Your task to perform on an android device: toggle notification dots Image 0: 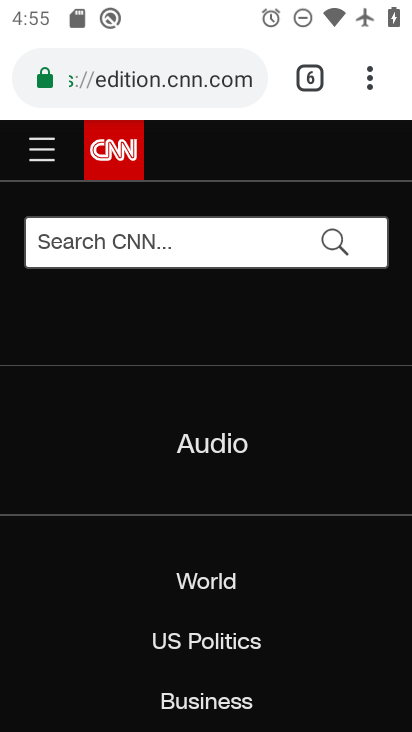
Step 0: press home button
Your task to perform on an android device: toggle notification dots Image 1: 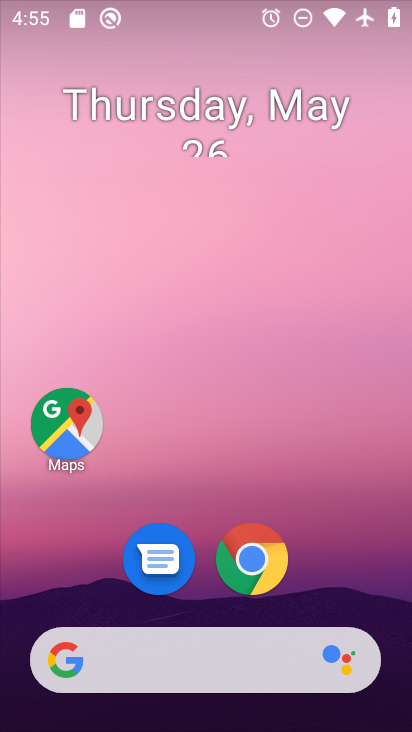
Step 1: drag from (337, 516) to (162, 1)
Your task to perform on an android device: toggle notification dots Image 2: 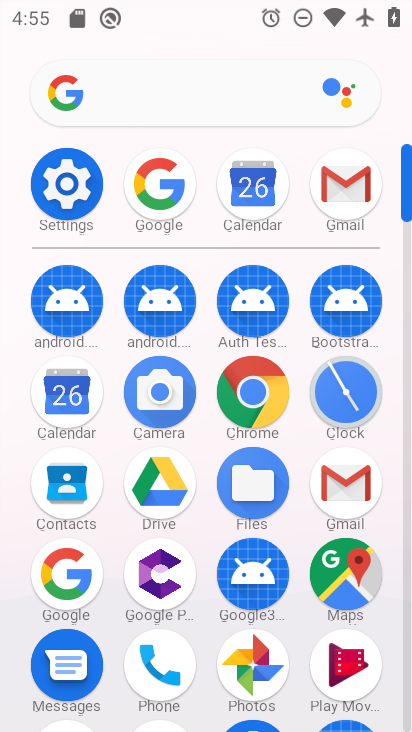
Step 2: click (77, 189)
Your task to perform on an android device: toggle notification dots Image 3: 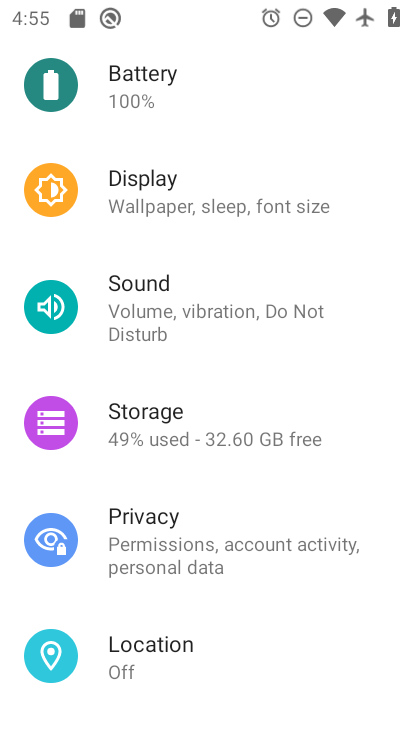
Step 3: drag from (292, 128) to (256, 649)
Your task to perform on an android device: toggle notification dots Image 4: 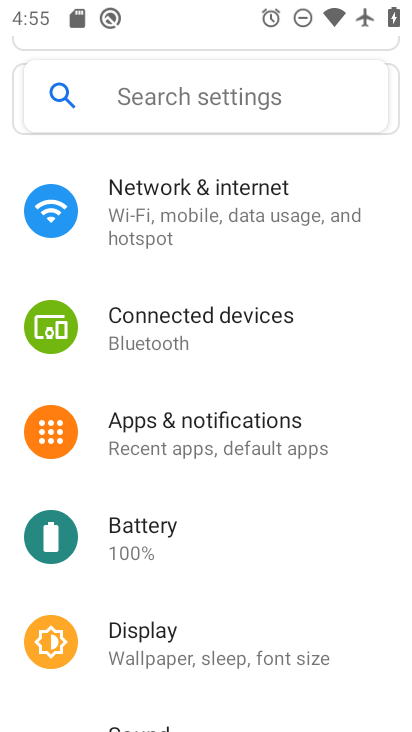
Step 4: click (219, 444)
Your task to perform on an android device: toggle notification dots Image 5: 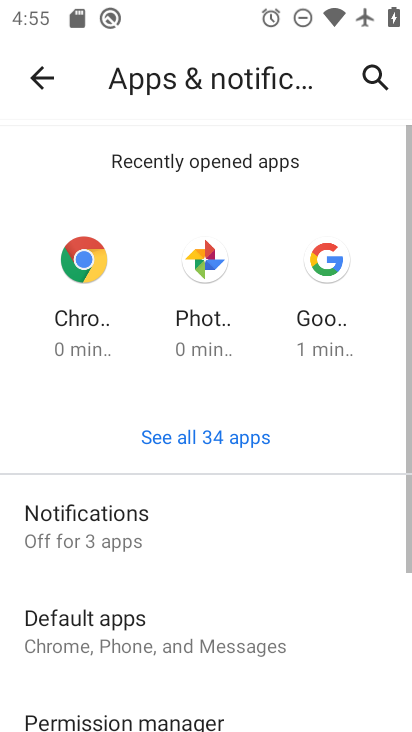
Step 5: click (193, 520)
Your task to perform on an android device: toggle notification dots Image 6: 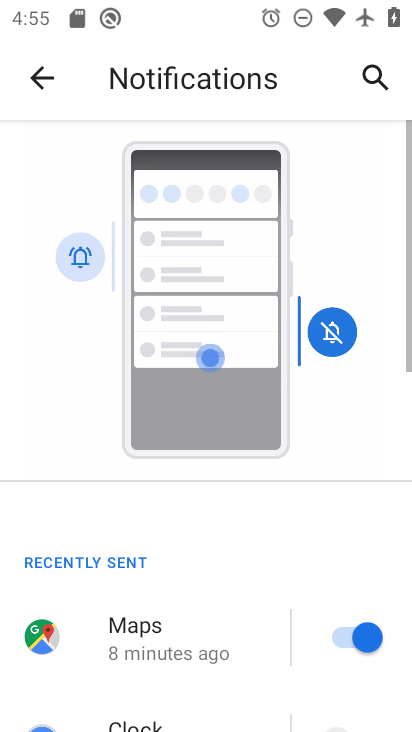
Step 6: drag from (249, 642) to (253, 72)
Your task to perform on an android device: toggle notification dots Image 7: 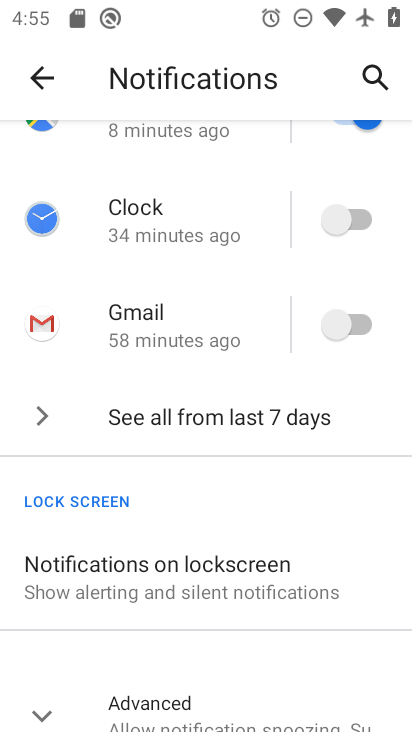
Step 7: drag from (265, 637) to (195, 280)
Your task to perform on an android device: toggle notification dots Image 8: 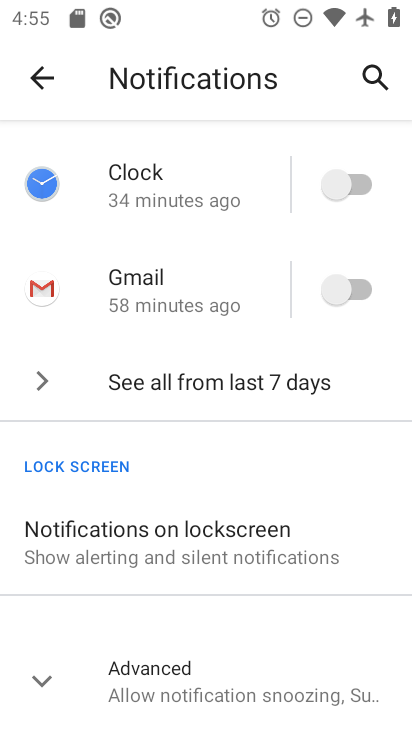
Step 8: click (213, 680)
Your task to perform on an android device: toggle notification dots Image 9: 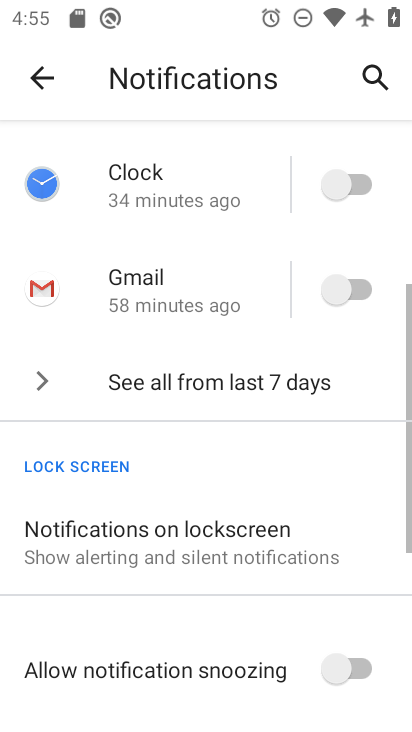
Step 9: drag from (237, 608) to (226, 97)
Your task to perform on an android device: toggle notification dots Image 10: 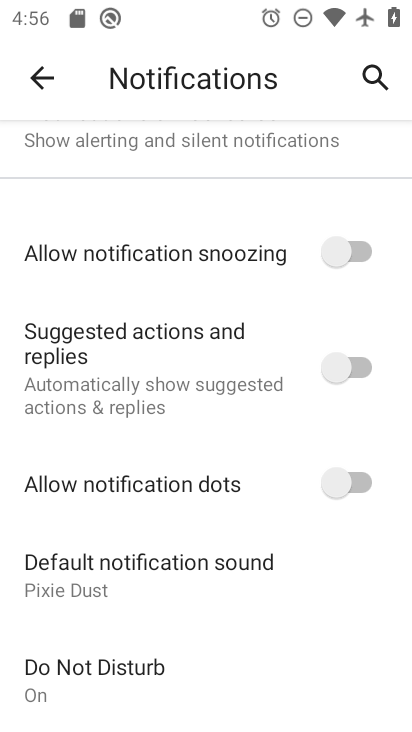
Step 10: click (356, 490)
Your task to perform on an android device: toggle notification dots Image 11: 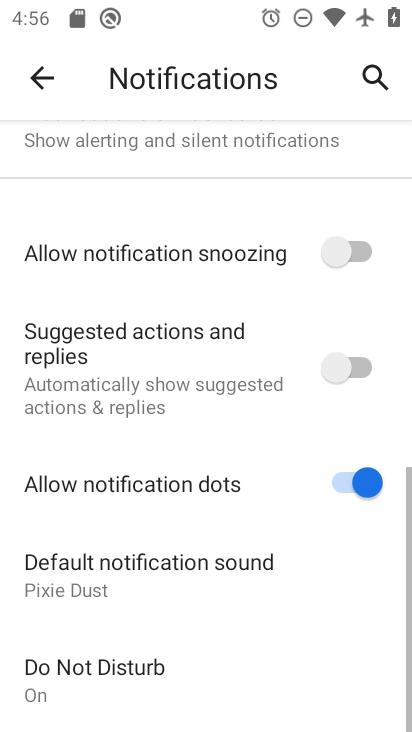
Step 11: task complete